Your task to perform on an android device: remove spam from my inbox in the gmail app Image 0: 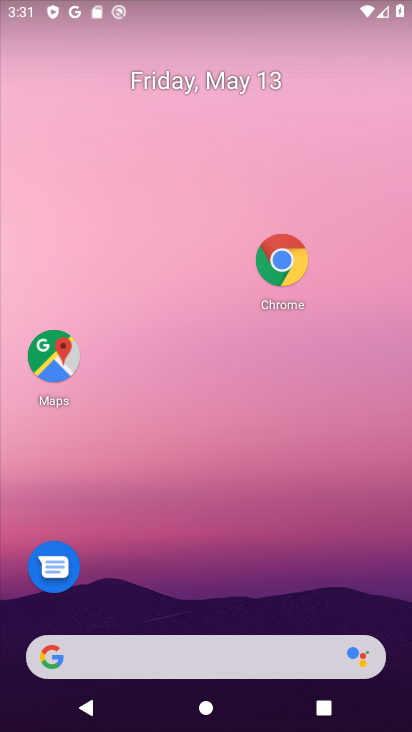
Step 0: drag from (404, 524) to (126, 166)
Your task to perform on an android device: remove spam from my inbox in the gmail app Image 1: 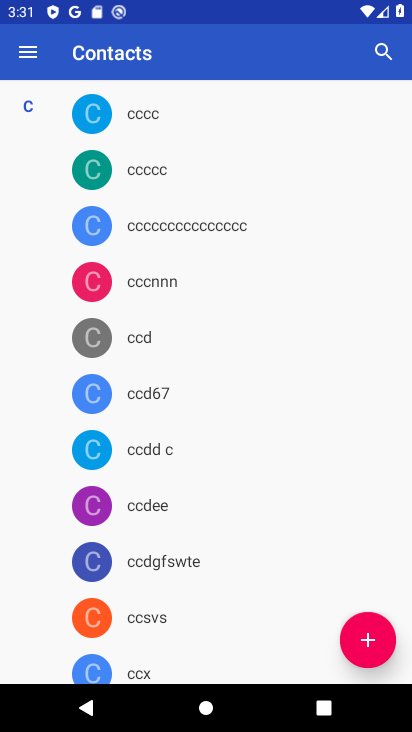
Step 1: press back button
Your task to perform on an android device: remove spam from my inbox in the gmail app Image 2: 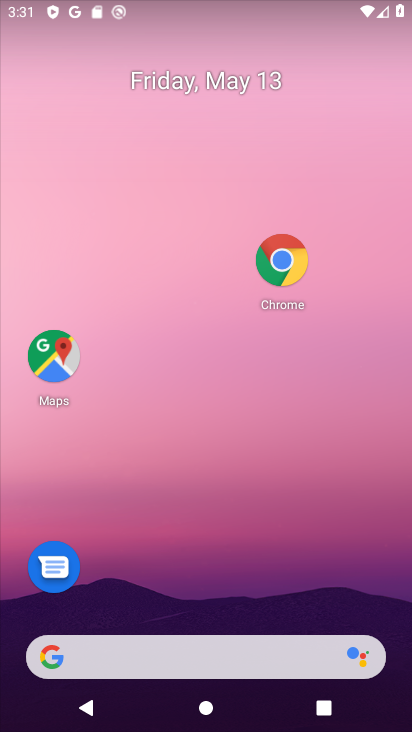
Step 2: drag from (250, 490) to (192, 185)
Your task to perform on an android device: remove spam from my inbox in the gmail app Image 3: 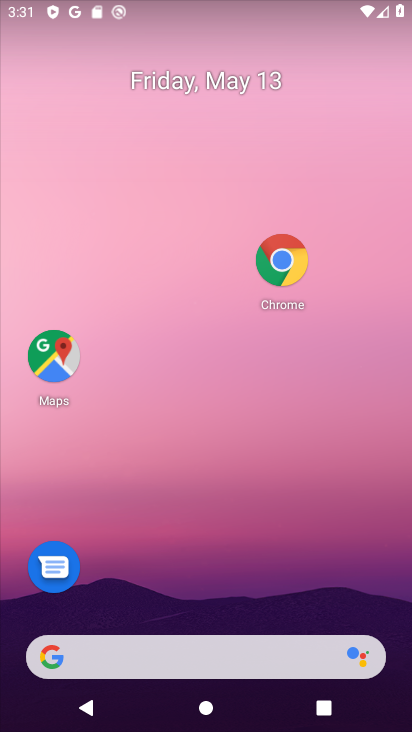
Step 3: drag from (209, 634) to (164, 307)
Your task to perform on an android device: remove spam from my inbox in the gmail app Image 4: 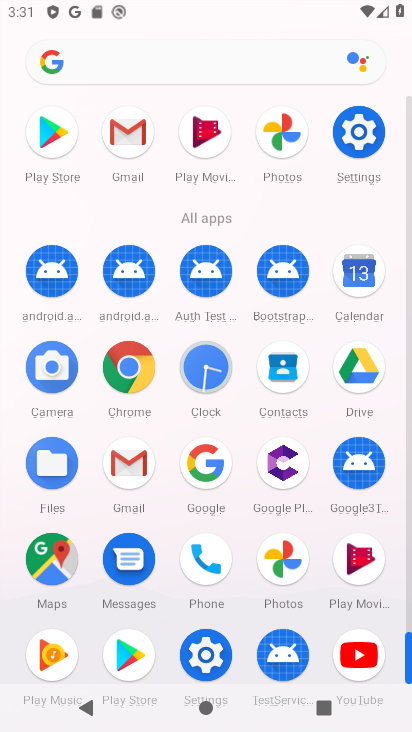
Step 4: click (108, 454)
Your task to perform on an android device: remove spam from my inbox in the gmail app Image 5: 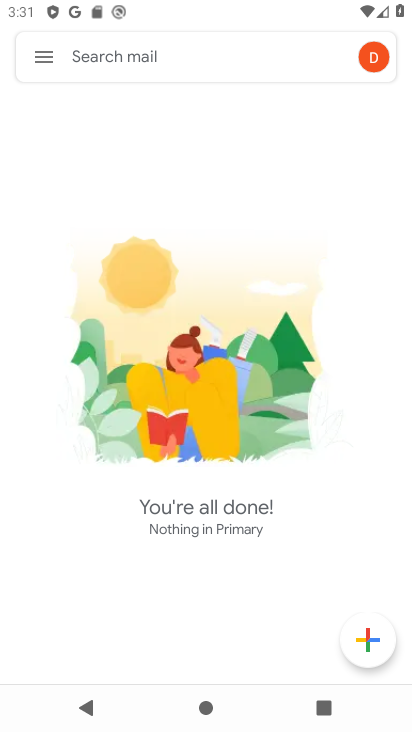
Step 5: click (28, 51)
Your task to perform on an android device: remove spam from my inbox in the gmail app Image 6: 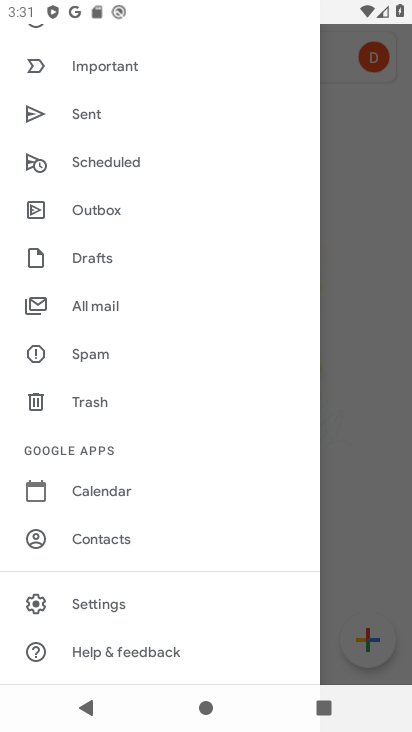
Step 6: click (79, 347)
Your task to perform on an android device: remove spam from my inbox in the gmail app Image 7: 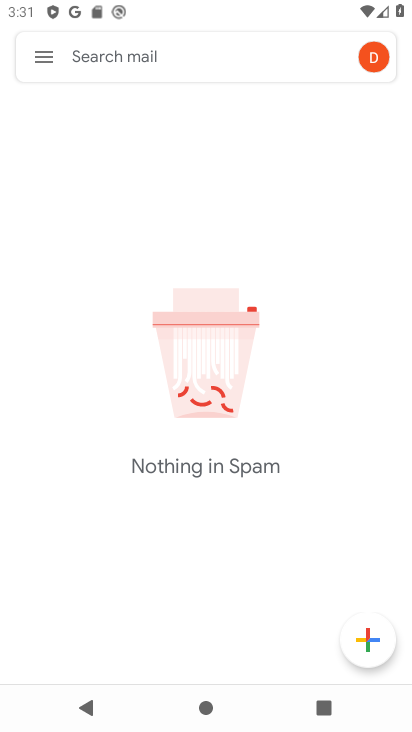
Step 7: task complete